Your task to perform on an android device: Go to CNN.com Image 0: 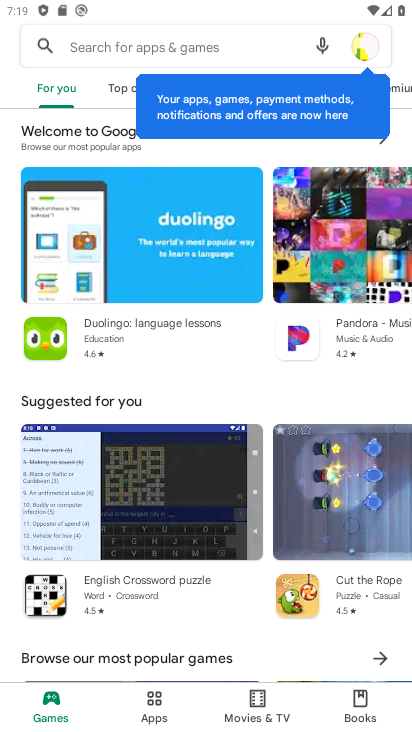
Step 0: press home button
Your task to perform on an android device: Go to CNN.com Image 1: 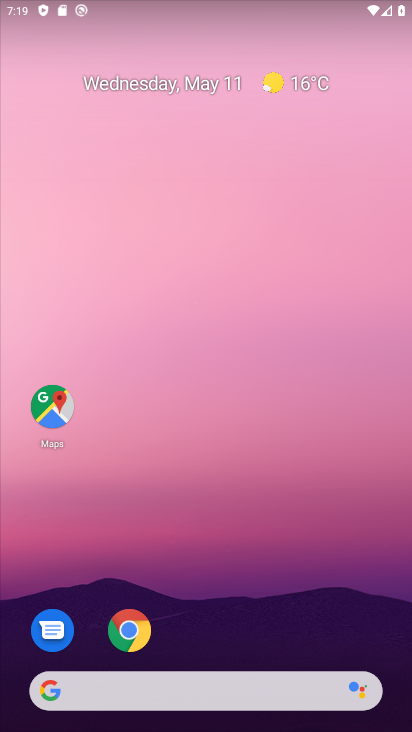
Step 1: click (145, 620)
Your task to perform on an android device: Go to CNN.com Image 2: 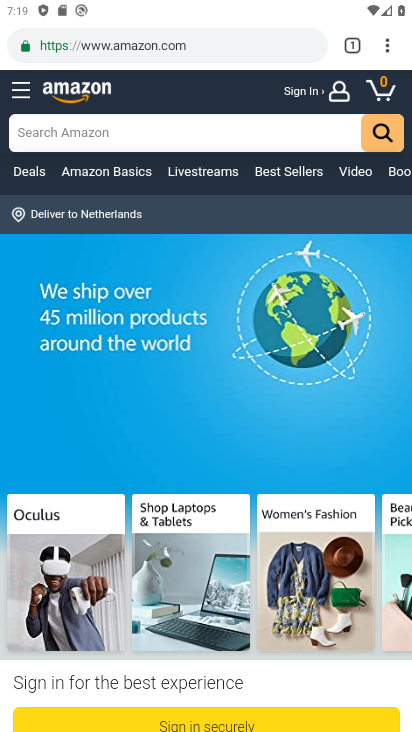
Step 2: click (188, 51)
Your task to perform on an android device: Go to CNN.com Image 3: 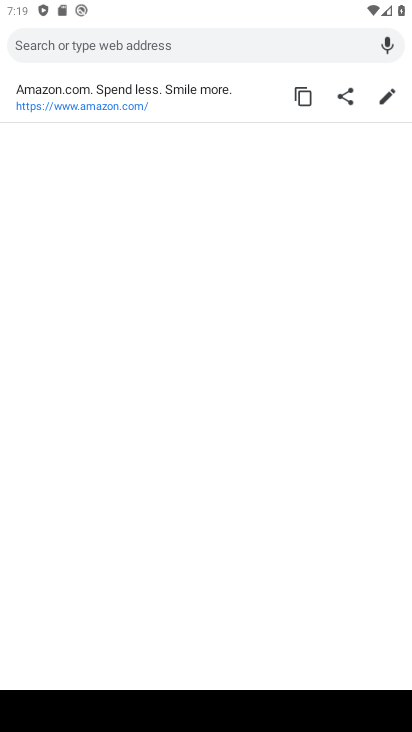
Step 3: type "cnn"
Your task to perform on an android device: Go to CNN.com Image 4: 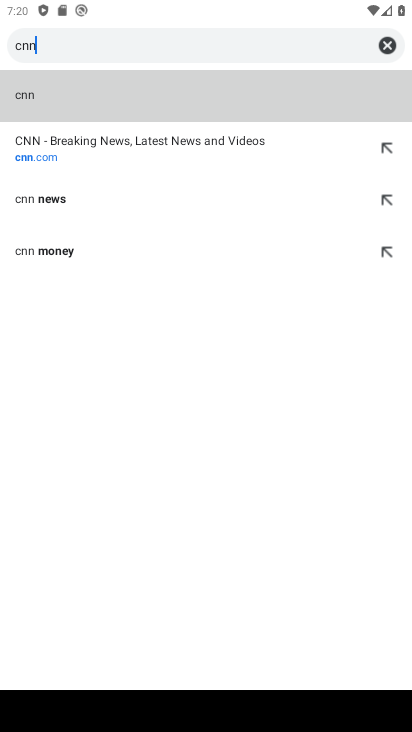
Step 4: click (64, 157)
Your task to perform on an android device: Go to CNN.com Image 5: 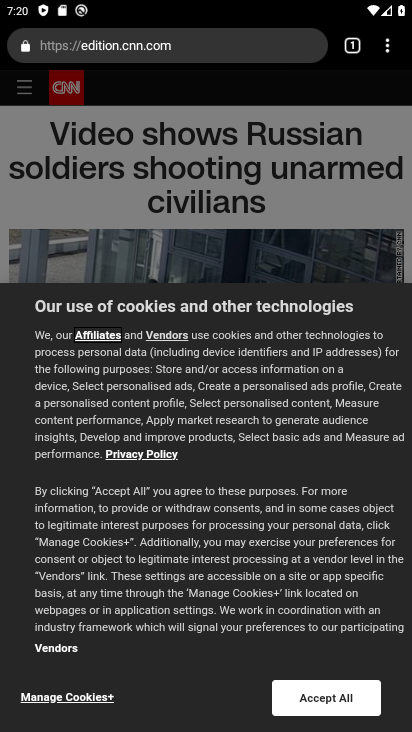
Step 5: task complete